Your task to perform on an android device: turn notification dots on Image 0: 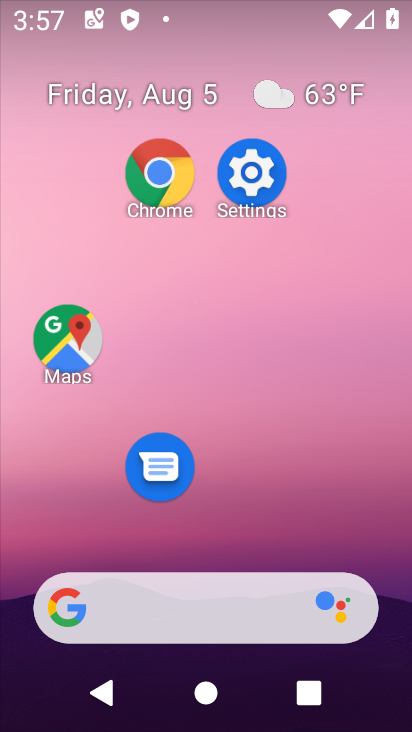
Step 0: click (249, 173)
Your task to perform on an android device: turn notification dots on Image 1: 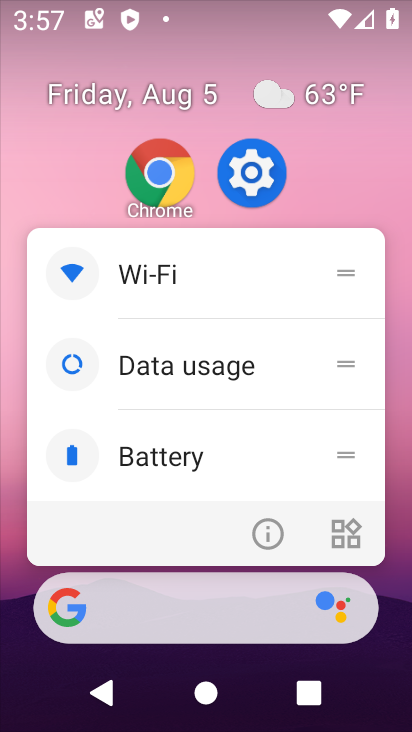
Step 1: click (247, 183)
Your task to perform on an android device: turn notification dots on Image 2: 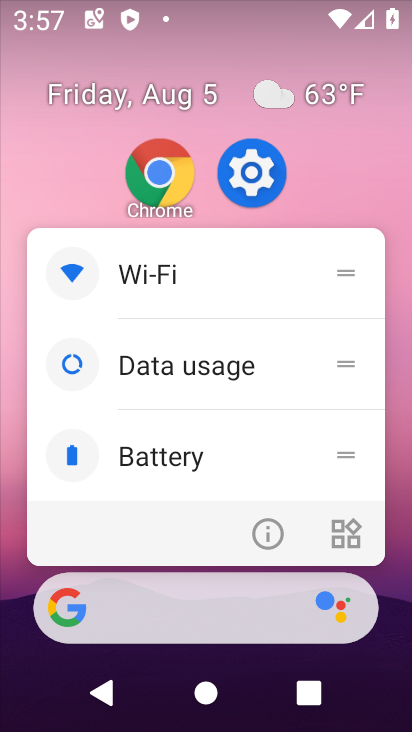
Step 2: click (247, 183)
Your task to perform on an android device: turn notification dots on Image 3: 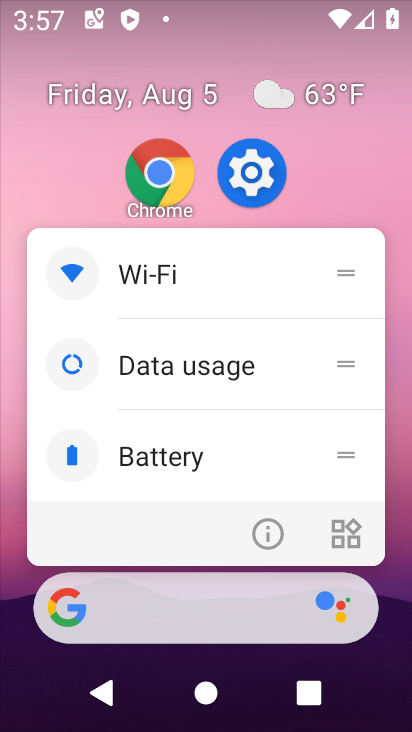
Step 3: click (296, 212)
Your task to perform on an android device: turn notification dots on Image 4: 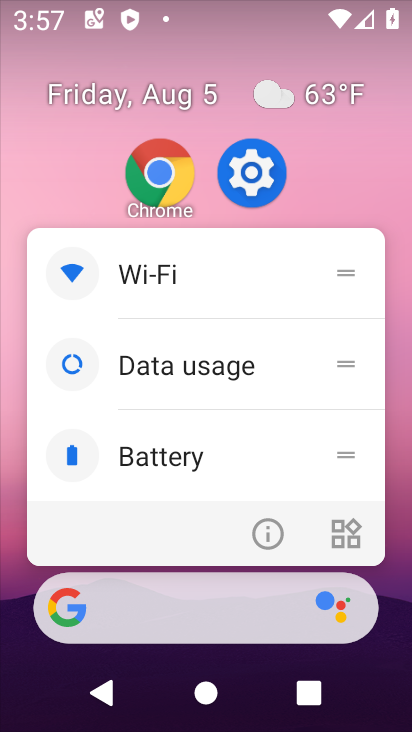
Step 4: click (338, 167)
Your task to perform on an android device: turn notification dots on Image 5: 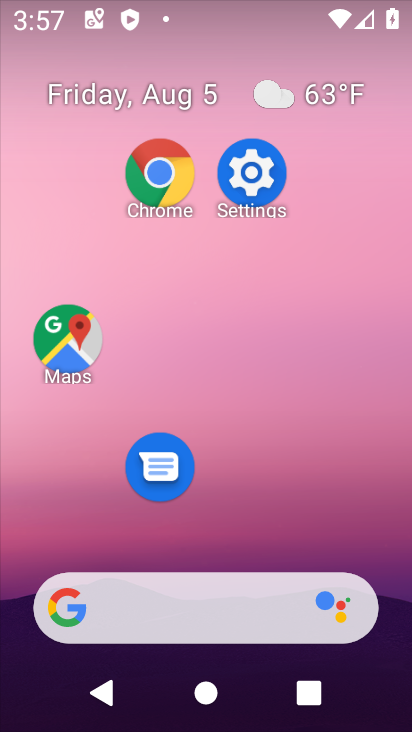
Step 5: drag from (295, 522) to (277, 11)
Your task to perform on an android device: turn notification dots on Image 6: 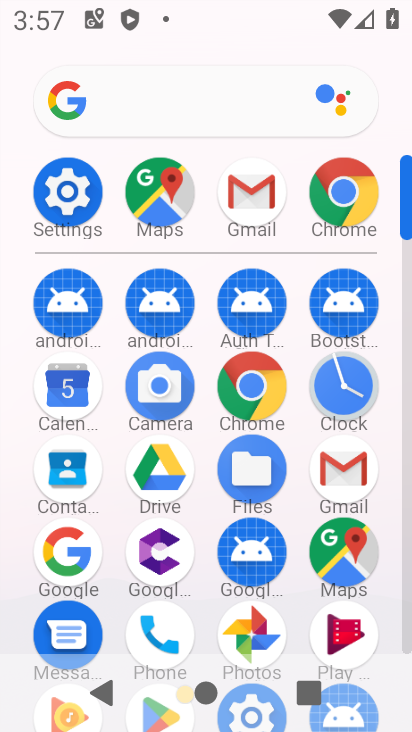
Step 6: drag from (205, 446) to (201, 126)
Your task to perform on an android device: turn notification dots on Image 7: 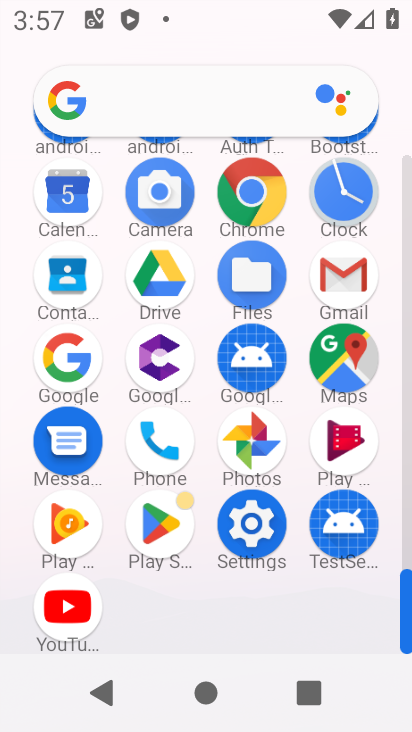
Step 7: click (244, 524)
Your task to perform on an android device: turn notification dots on Image 8: 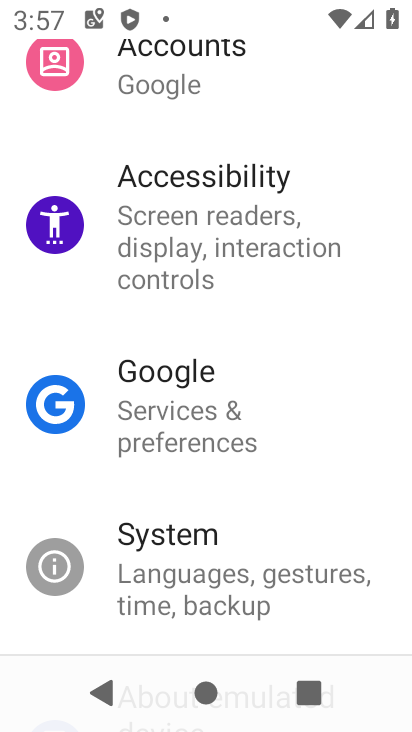
Step 8: drag from (287, 116) to (305, 525)
Your task to perform on an android device: turn notification dots on Image 9: 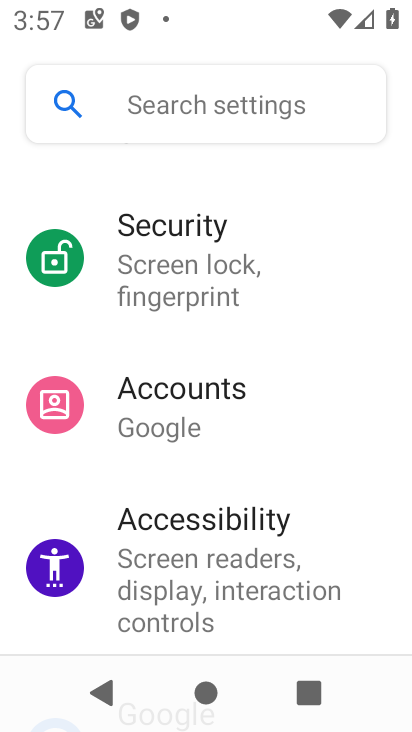
Step 9: drag from (305, 525) to (304, 660)
Your task to perform on an android device: turn notification dots on Image 10: 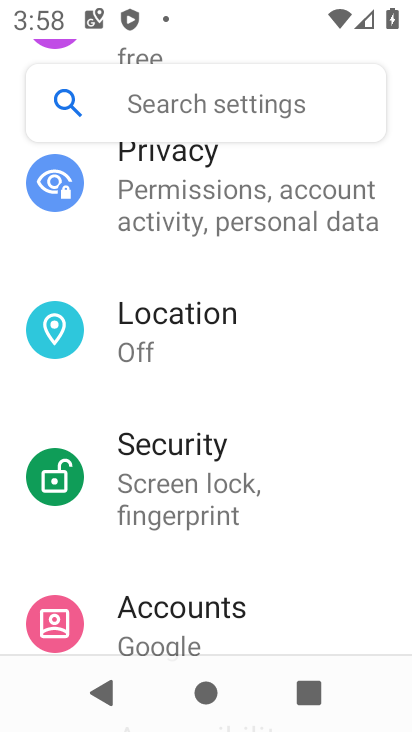
Step 10: drag from (264, 227) to (271, 609)
Your task to perform on an android device: turn notification dots on Image 11: 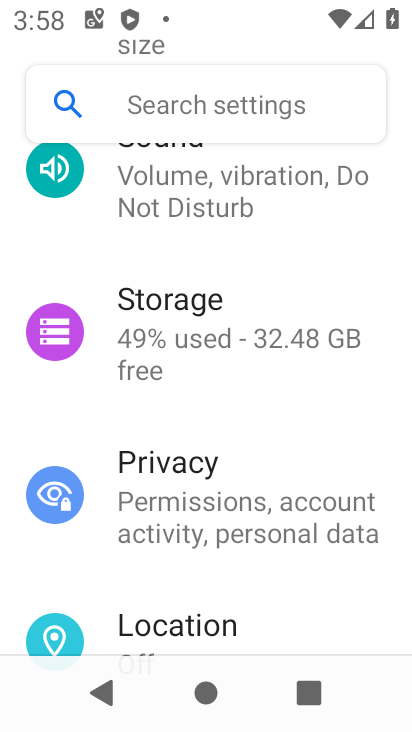
Step 11: drag from (249, 206) to (254, 602)
Your task to perform on an android device: turn notification dots on Image 12: 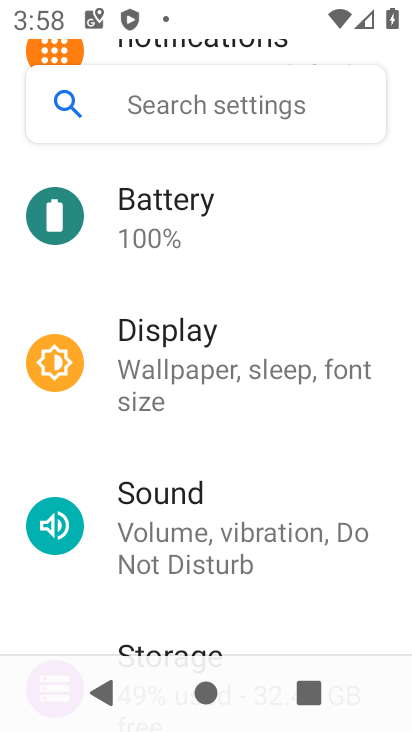
Step 12: drag from (221, 214) to (225, 584)
Your task to perform on an android device: turn notification dots on Image 13: 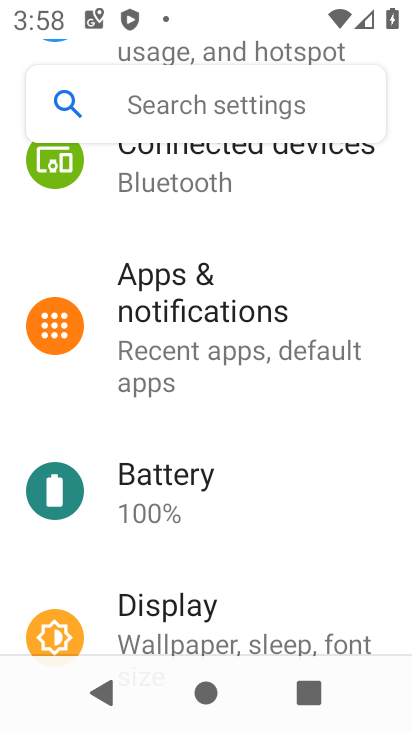
Step 13: drag from (184, 244) to (186, 376)
Your task to perform on an android device: turn notification dots on Image 14: 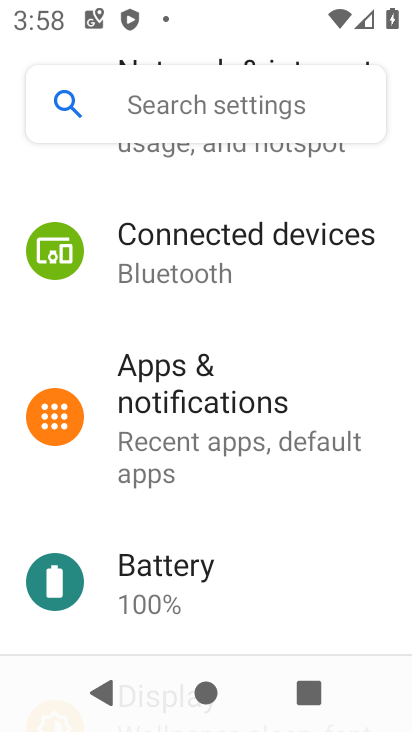
Step 14: click (186, 376)
Your task to perform on an android device: turn notification dots on Image 15: 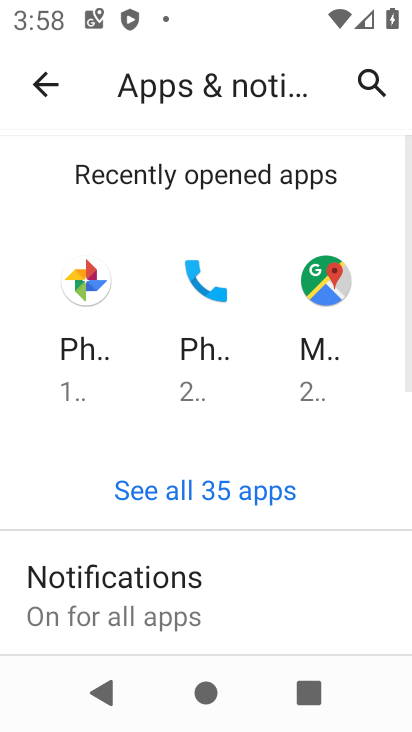
Step 15: click (118, 572)
Your task to perform on an android device: turn notification dots on Image 16: 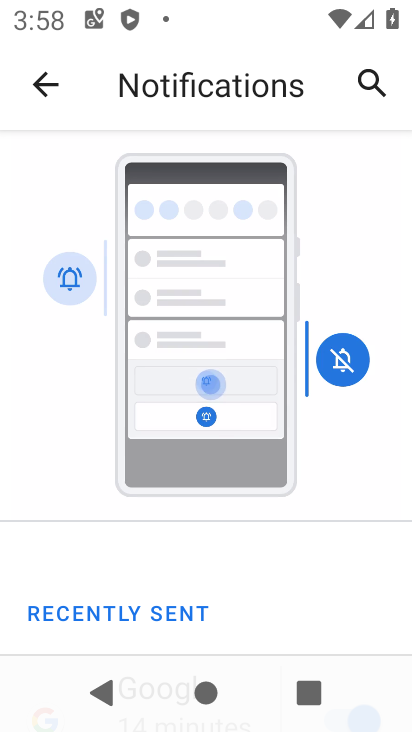
Step 16: drag from (201, 586) to (207, 210)
Your task to perform on an android device: turn notification dots on Image 17: 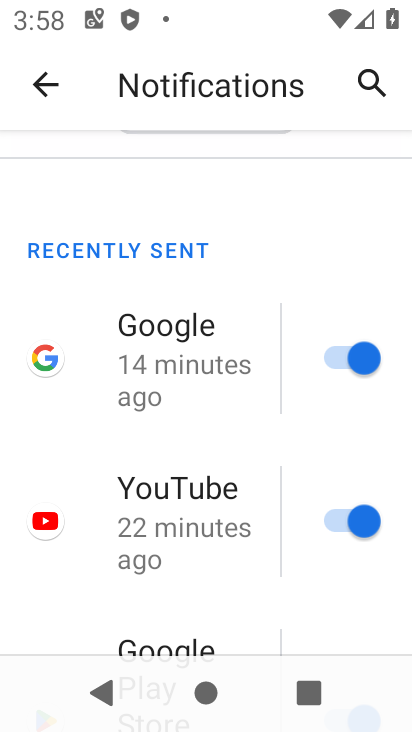
Step 17: drag from (218, 572) to (204, 164)
Your task to perform on an android device: turn notification dots on Image 18: 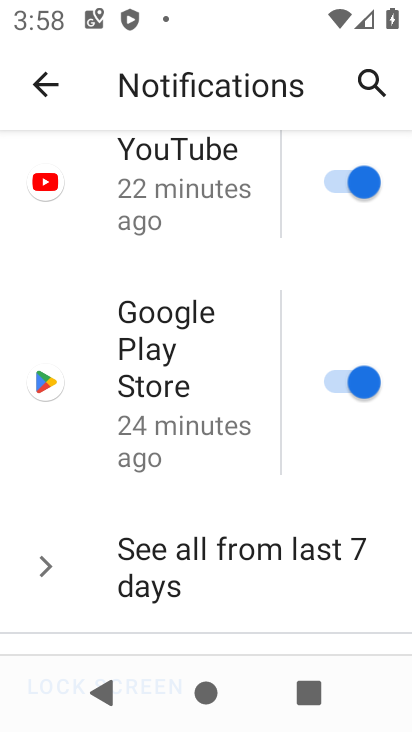
Step 18: drag from (229, 617) to (230, 213)
Your task to perform on an android device: turn notification dots on Image 19: 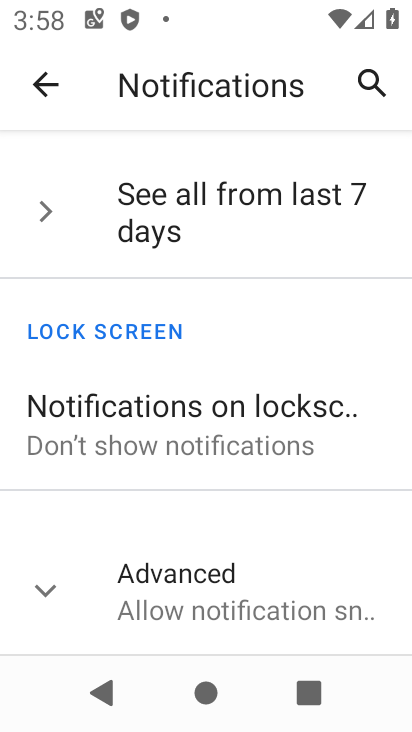
Step 19: drag from (277, 566) to (255, 194)
Your task to perform on an android device: turn notification dots on Image 20: 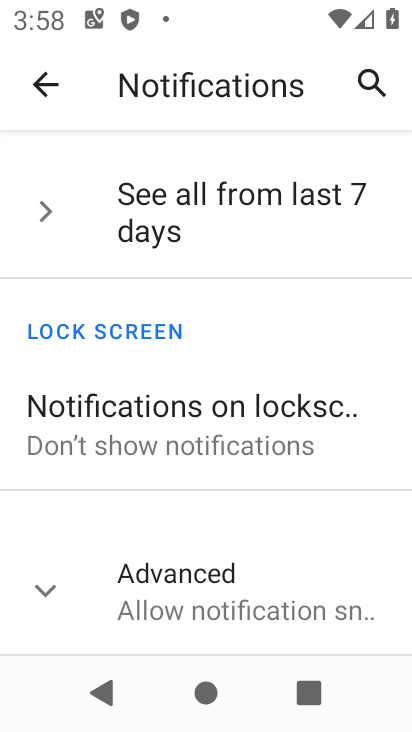
Step 20: click (214, 584)
Your task to perform on an android device: turn notification dots on Image 21: 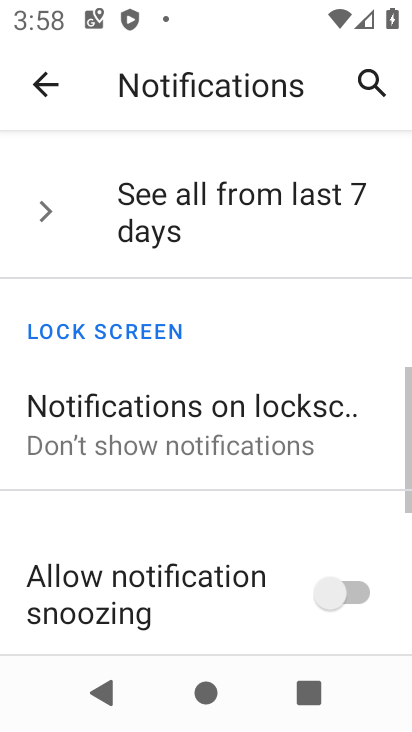
Step 21: task complete